Your task to perform on an android device: open sync settings in chrome Image 0: 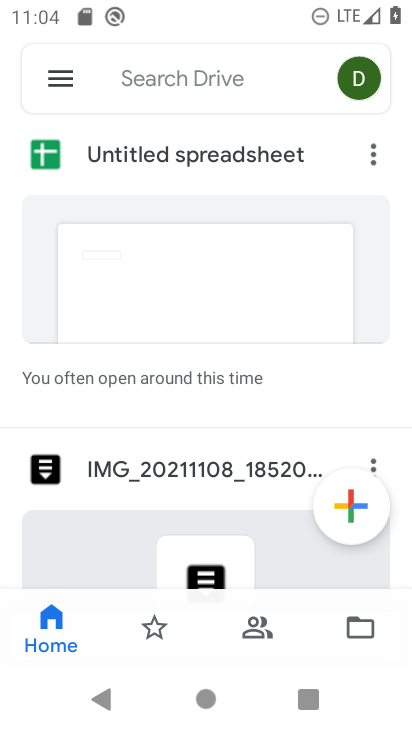
Step 0: press home button
Your task to perform on an android device: open sync settings in chrome Image 1: 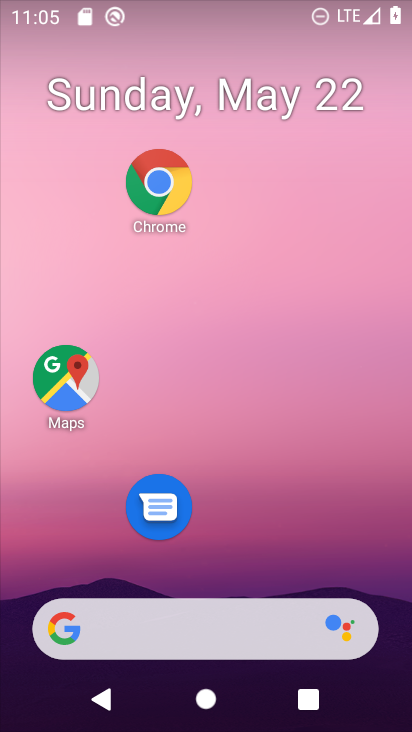
Step 1: click (167, 183)
Your task to perform on an android device: open sync settings in chrome Image 2: 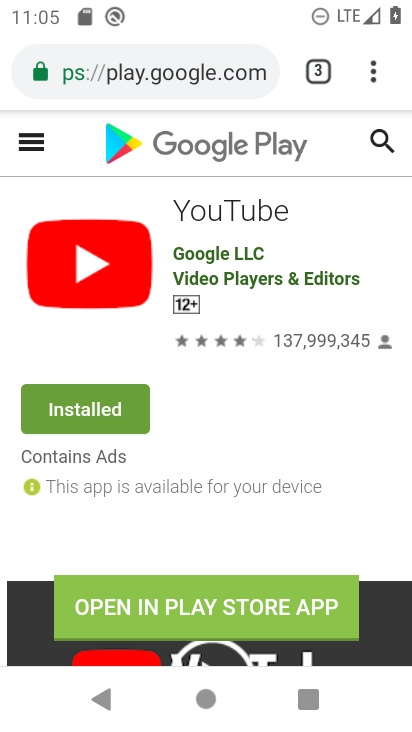
Step 2: click (370, 65)
Your task to perform on an android device: open sync settings in chrome Image 3: 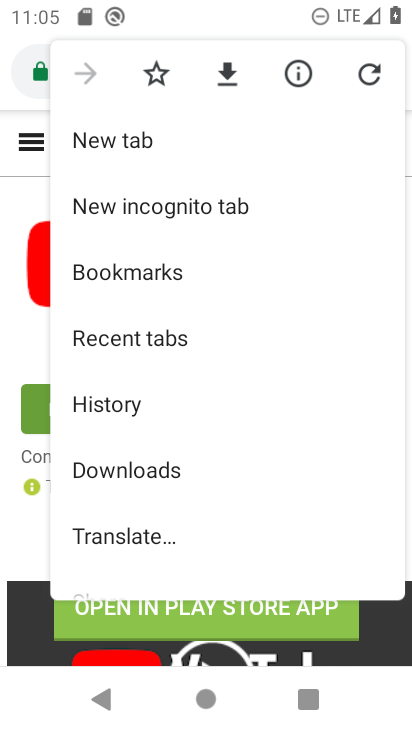
Step 3: drag from (196, 512) to (225, 56)
Your task to perform on an android device: open sync settings in chrome Image 4: 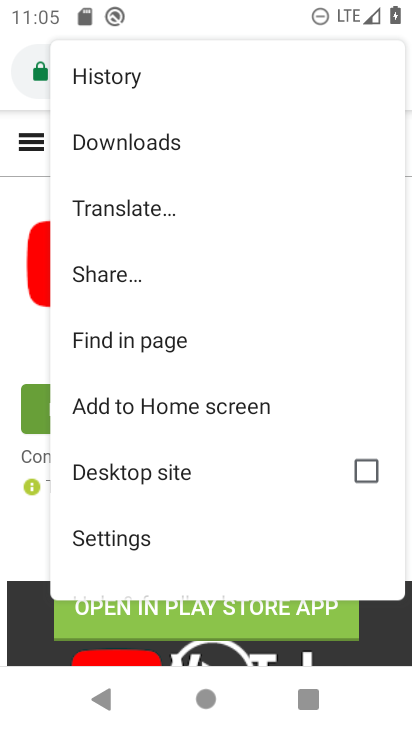
Step 4: click (136, 538)
Your task to perform on an android device: open sync settings in chrome Image 5: 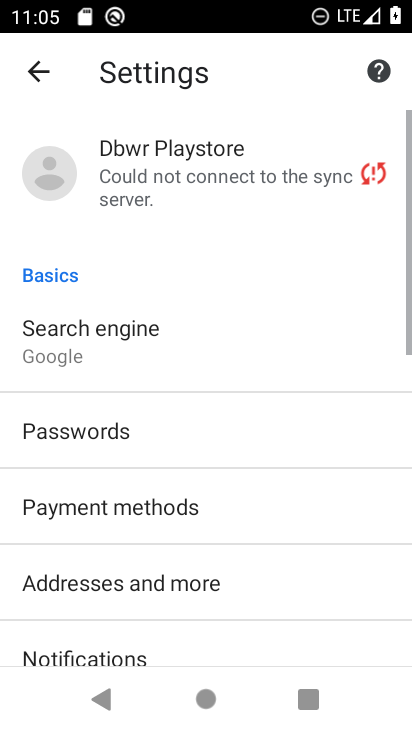
Step 5: click (219, 154)
Your task to perform on an android device: open sync settings in chrome Image 6: 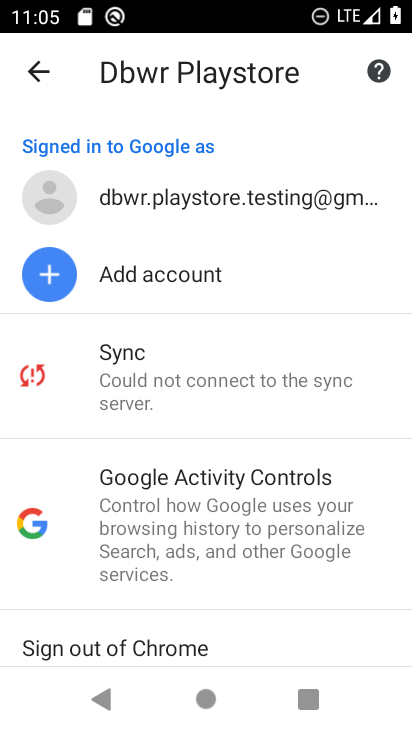
Step 6: task complete